Your task to perform on an android device: toggle sleep mode Image 0: 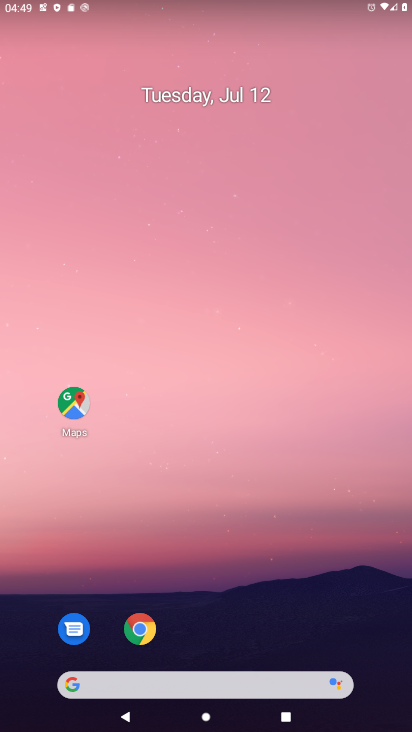
Step 0: press home button
Your task to perform on an android device: toggle sleep mode Image 1: 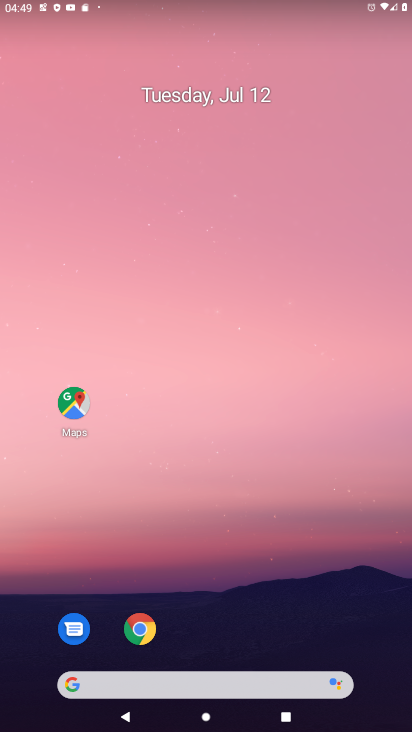
Step 1: drag from (255, 647) to (302, 137)
Your task to perform on an android device: toggle sleep mode Image 2: 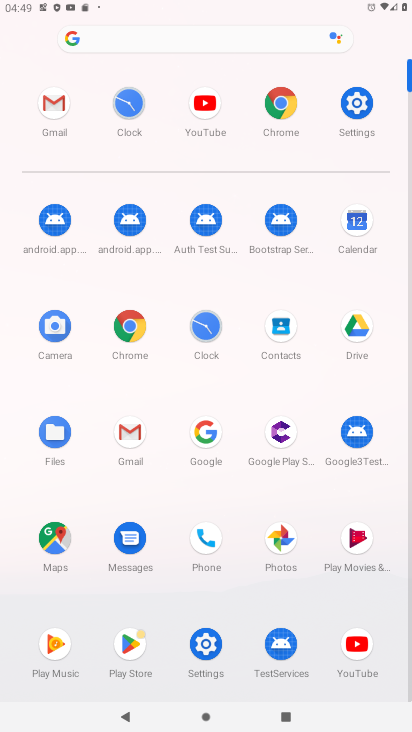
Step 2: click (369, 95)
Your task to perform on an android device: toggle sleep mode Image 3: 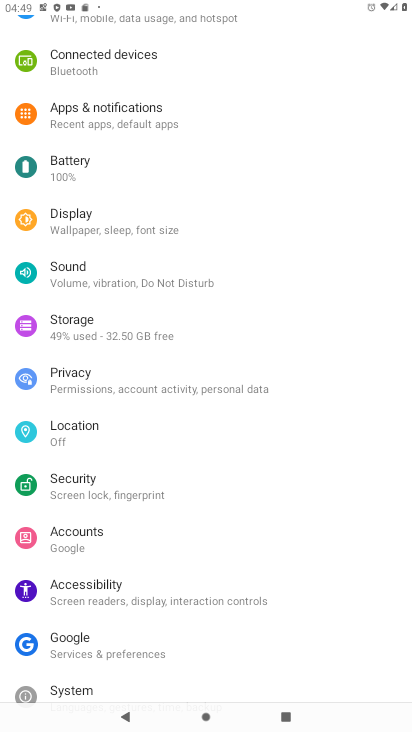
Step 3: click (76, 220)
Your task to perform on an android device: toggle sleep mode Image 4: 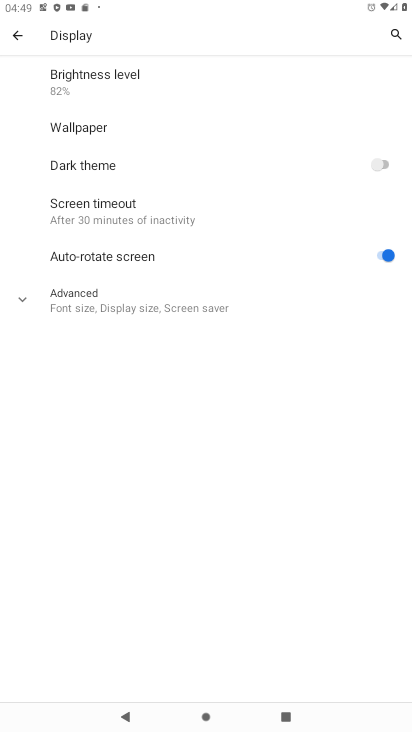
Step 4: task complete